Your task to perform on an android device: What's the weather today? Image 0: 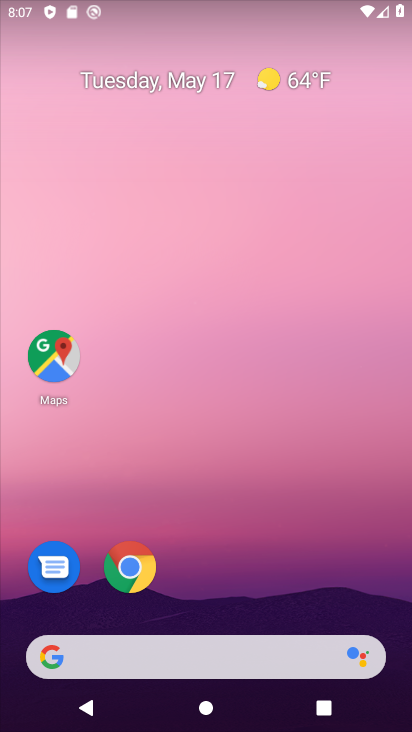
Step 0: drag from (340, 619) to (142, 52)
Your task to perform on an android device: What's the weather today? Image 1: 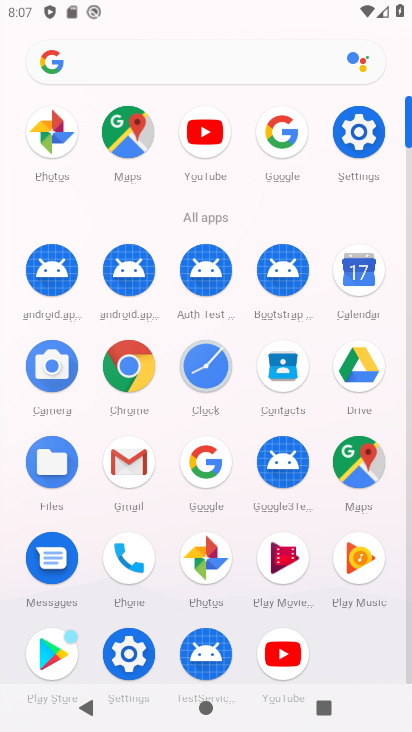
Step 1: click (201, 478)
Your task to perform on an android device: What's the weather today? Image 2: 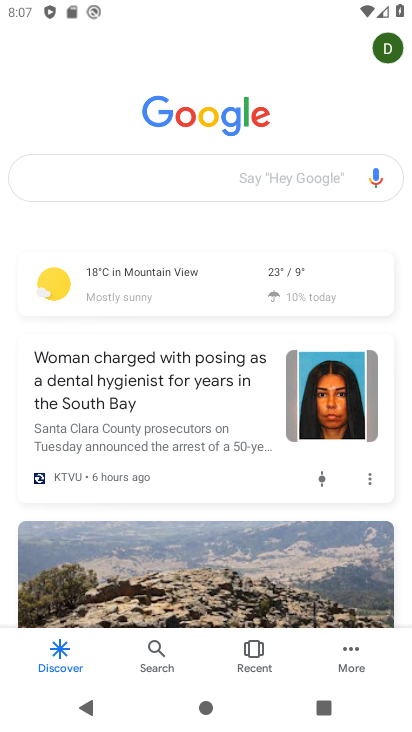
Step 2: click (238, 187)
Your task to perform on an android device: What's the weather today? Image 3: 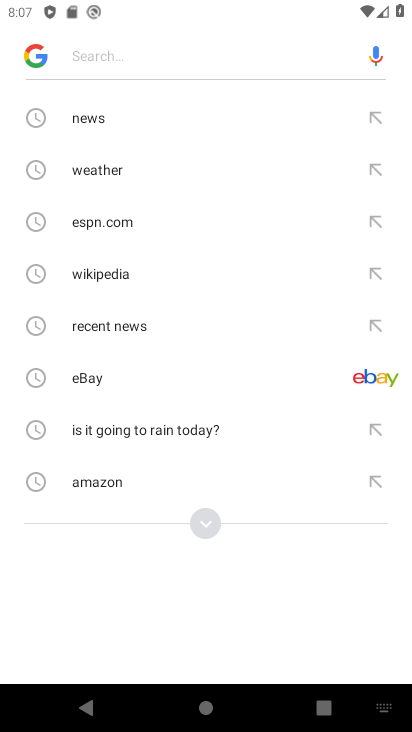
Step 3: click (201, 533)
Your task to perform on an android device: What's the weather today? Image 4: 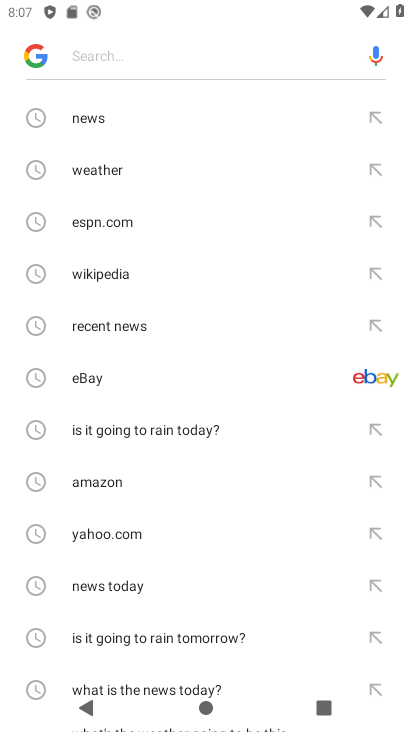
Step 4: drag from (205, 623) to (185, 342)
Your task to perform on an android device: What's the weather today? Image 5: 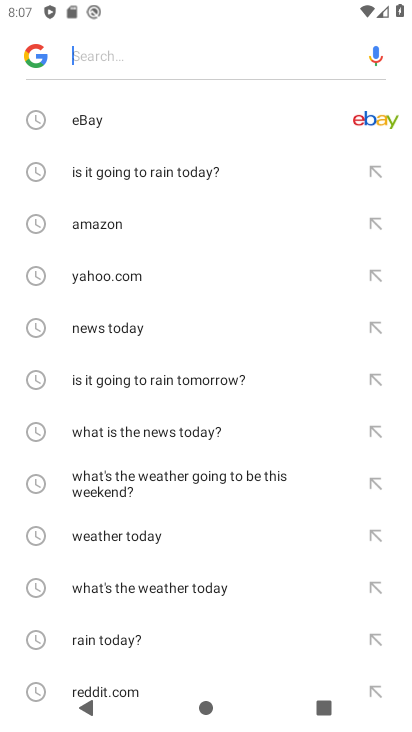
Step 5: click (211, 585)
Your task to perform on an android device: What's the weather today? Image 6: 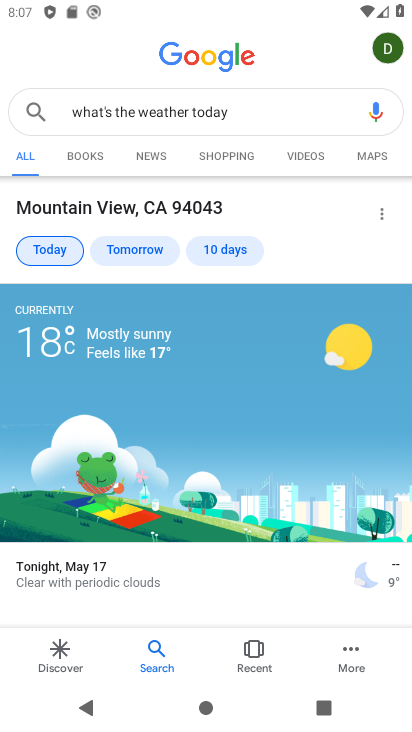
Step 6: task complete